Your task to perform on an android device: turn off javascript in the chrome app Image 0: 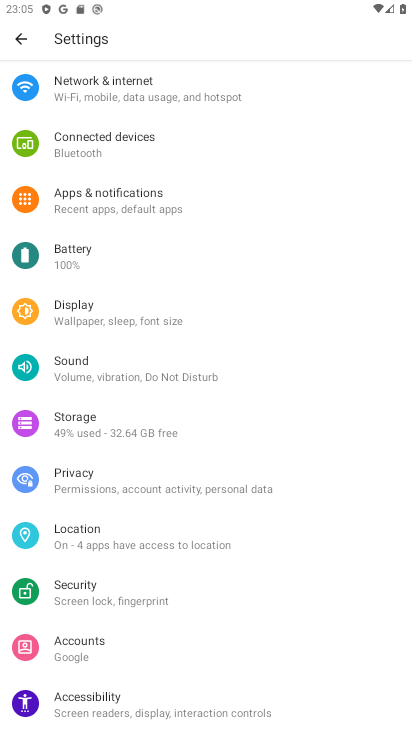
Step 0: press home button
Your task to perform on an android device: turn off javascript in the chrome app Image 1: 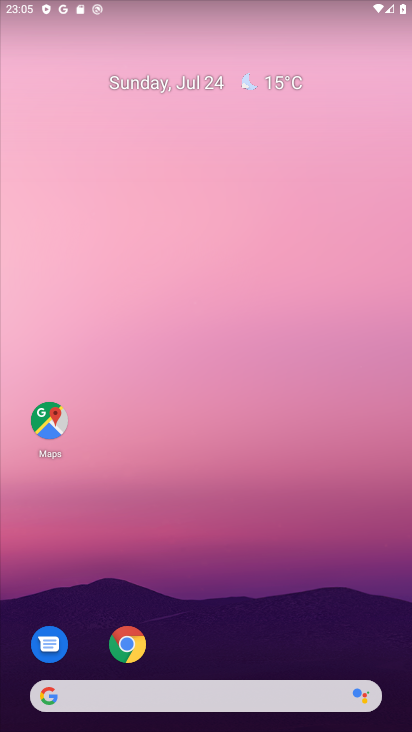
Step 1: click (130, 650)
Your task to perform on an android device: turn off javascript in the chrome app Image 2: 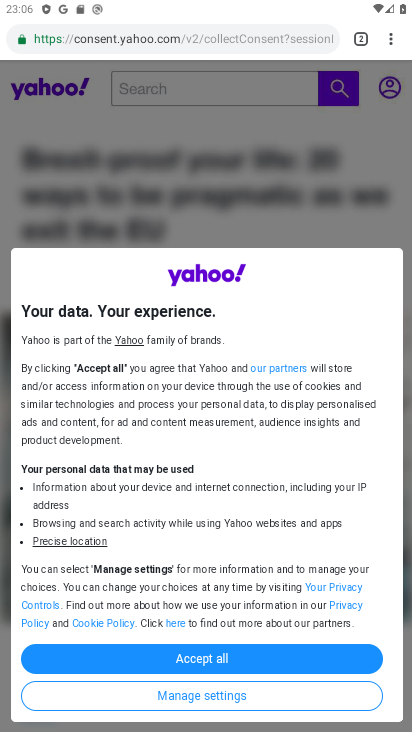
Step 2: click (392, 47)
Your task to perform on an android device: turn off javascript in the chrome app Image 3: 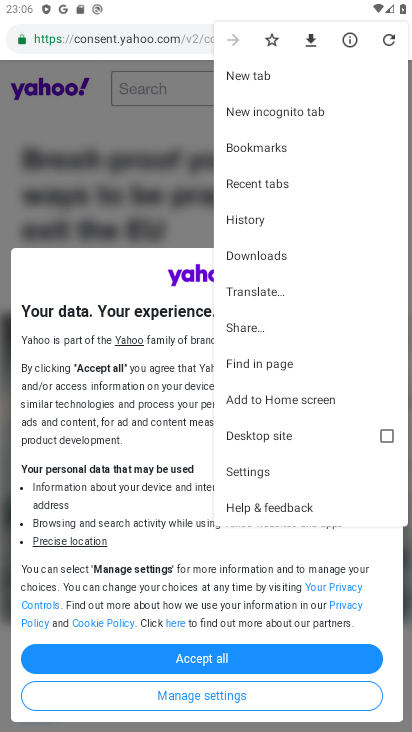
Step 3: click (253, 468)
Your task to perform on an android device: turn off javascript in the chrome app Image 4: 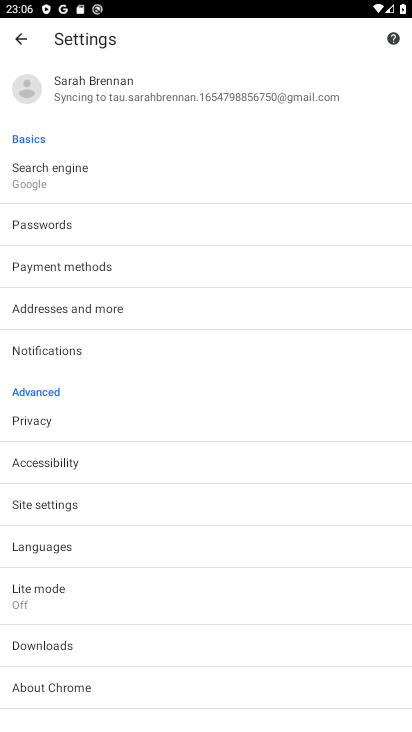
Step 4: click (45, 503)
Your task to perform on an android device: turn off javascript in the chrome app Image 5: 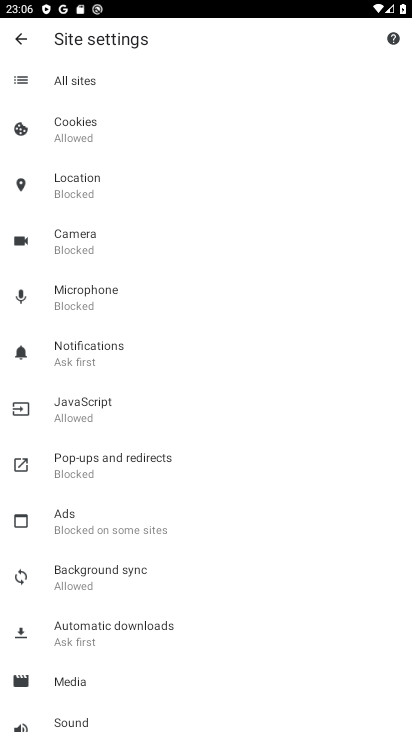
Step 5: click (76, 405)
Your task to perform on an android device: turn off javascript in the chrome app Image 6: 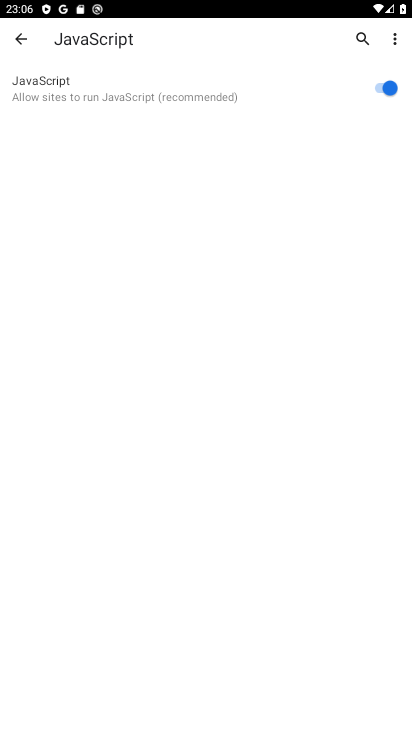
Step 6: click (376, 82)
Your task to perform on an android device: turn off javascript in the chrome app Image 7: 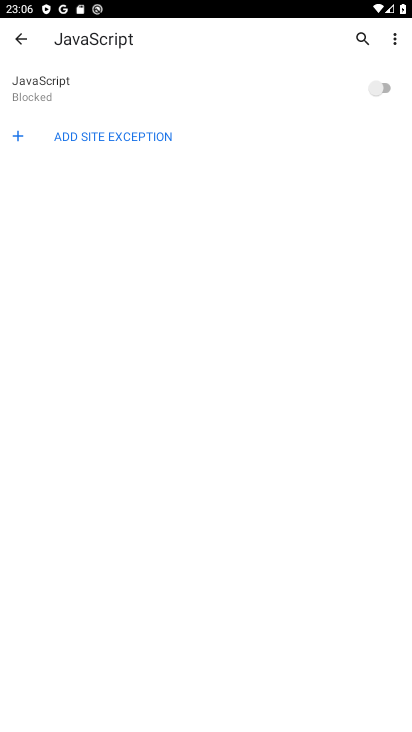
Step 7: task complete